Your task to perform on an android device: Check the settings for the Amazon Music app Image 0: 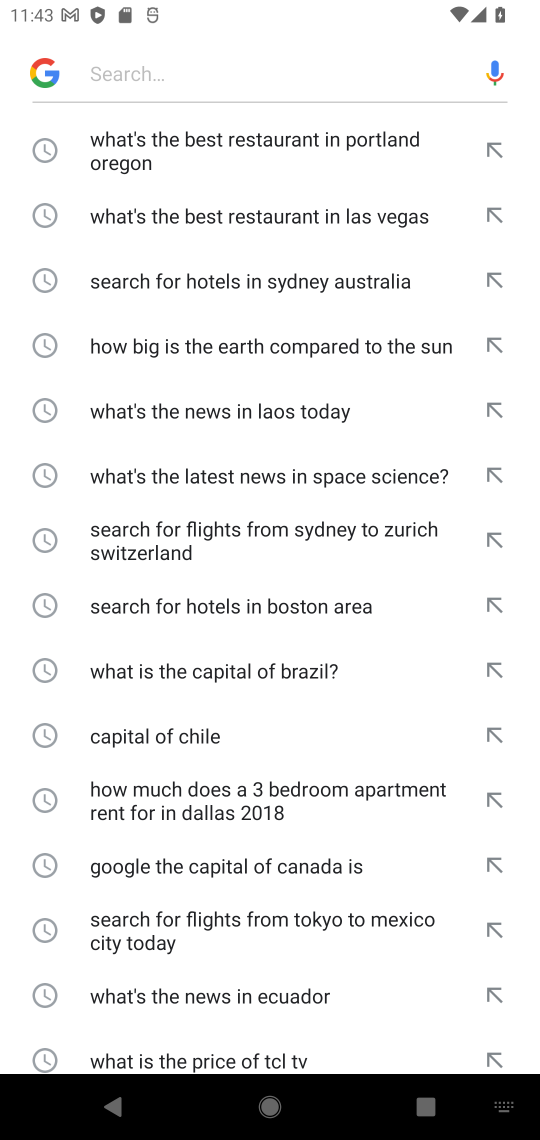
Step 0: type "Check the settings for the Amazon Music app"
Your task to perform on an android device: Check the settings for the Amazon Music app Image 1: 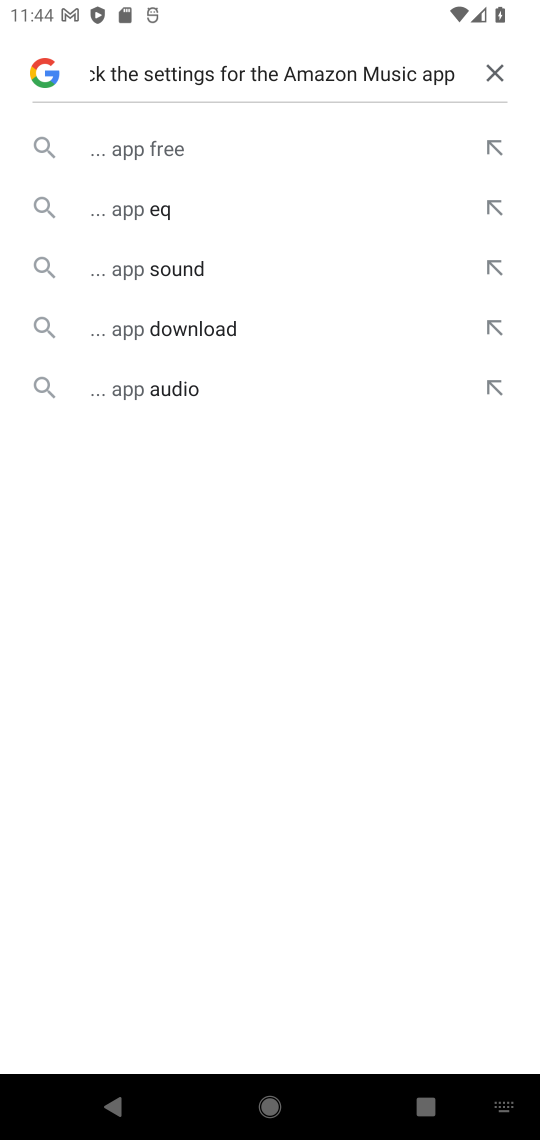
Step 1: click (154, 144)
Your task to perform on an android device: Check the settings for the Amazon Music app Image 2: 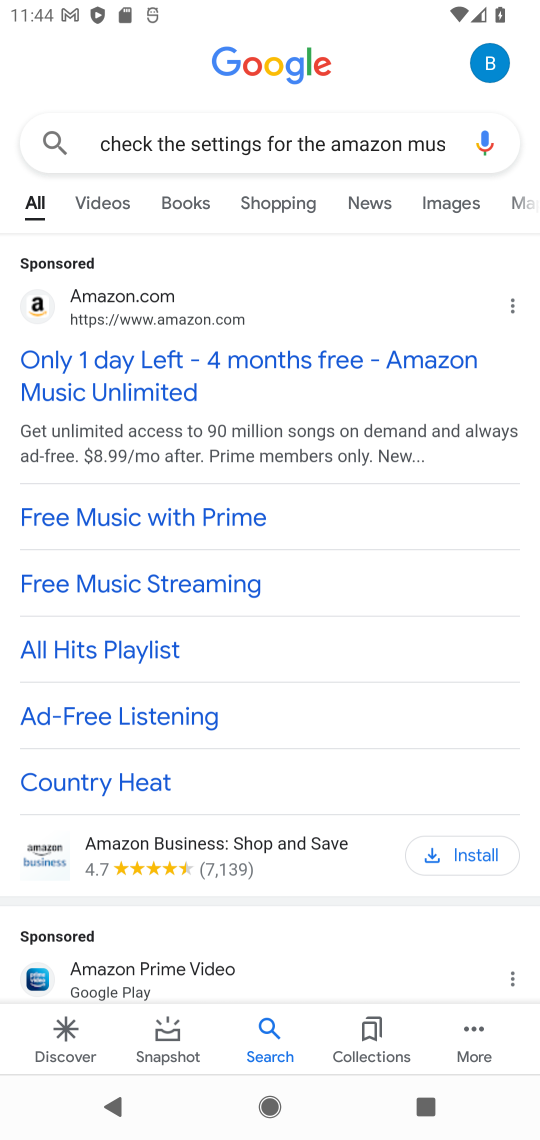
Step 2: click (214, 366)
Your task to perform on an android device: Check the settings for the Amazon Music app Image 3: 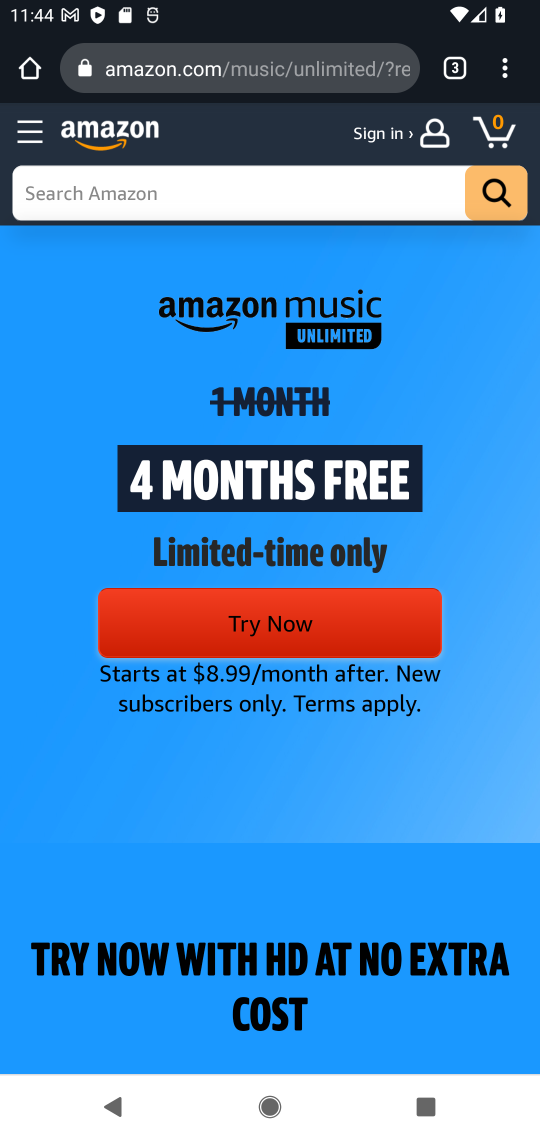
Step 3: task complete